Your task to perform on an android device: create a new album in the google photos Image 0: 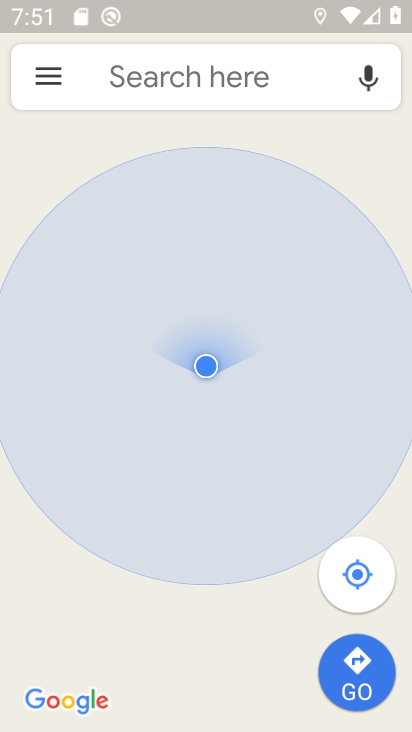
Step 0: press home button
Your task to perform on an android device: create a new album in the google photos Image 1: 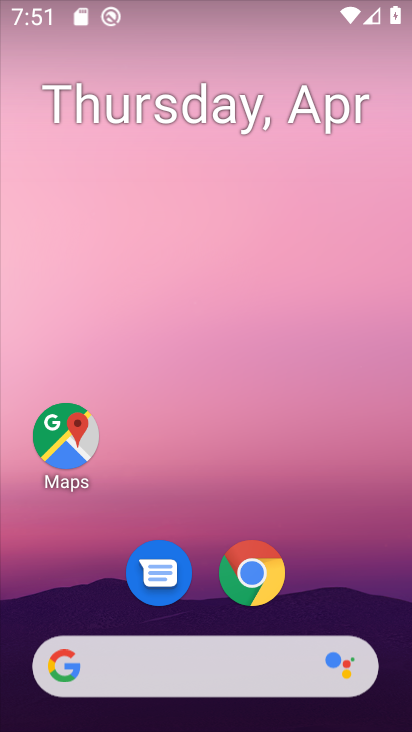
Step 1: drag from (200, 672) to (200, 40)
Your task to perform on an android device: create a new album in the google photos Image 2: 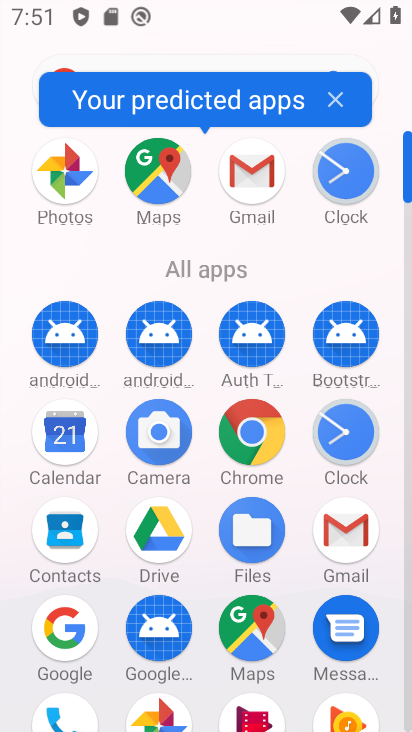
Step 2: click (72, 180)
Your task to perform on an android device: create a new album in the google photos Image 3: 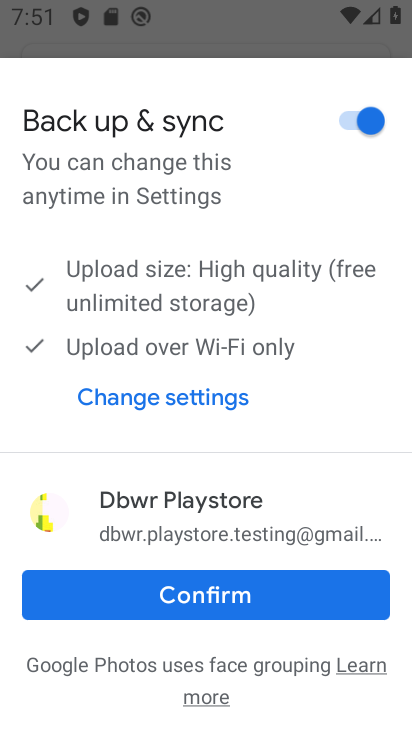
Step 3: click (204, 602)
Your task to perform on an android device: create a new album in the google photos Image 4: 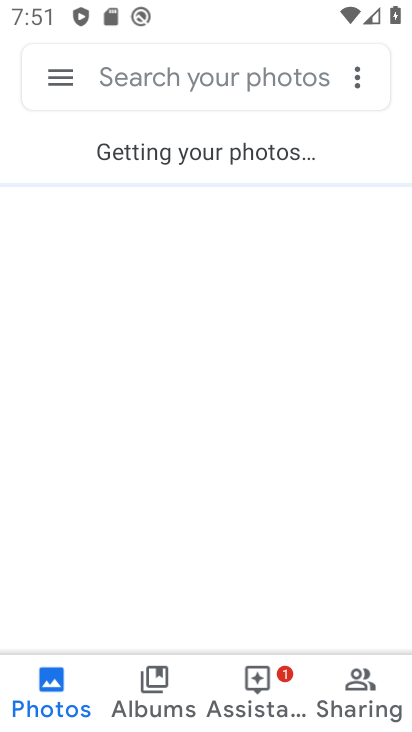
Step 4: click (357, 78)
Your task to perform on an android device: create a new album in the google photos Image 5: 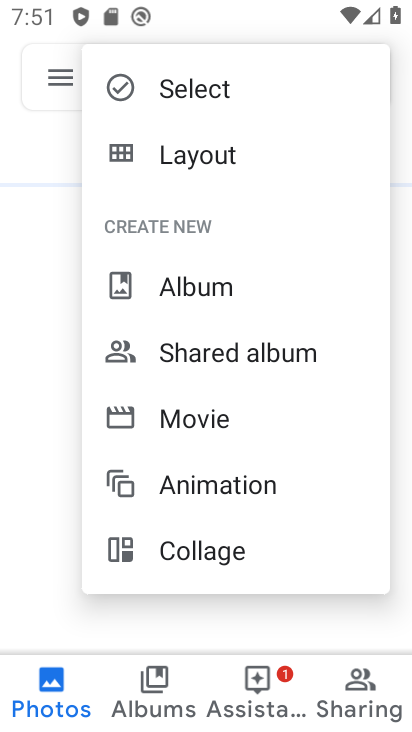
Step 5: click (183, 285)
Your task to perform on an android device: create a new album in the google photos Image 6: 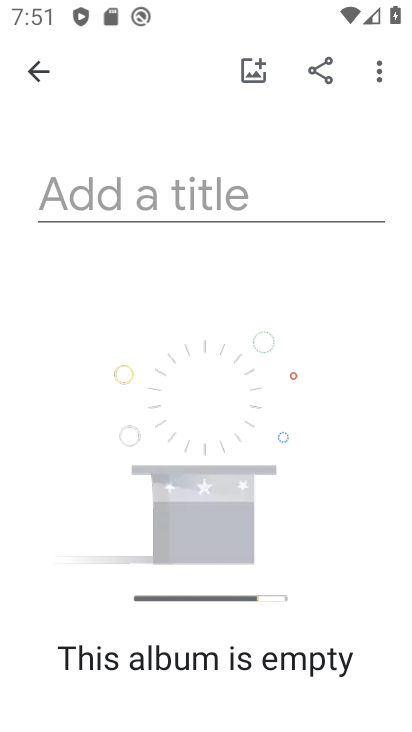
Step 6: click (197, 193)
Your task to perform on an android device: create a new album in the google photos Image 7: 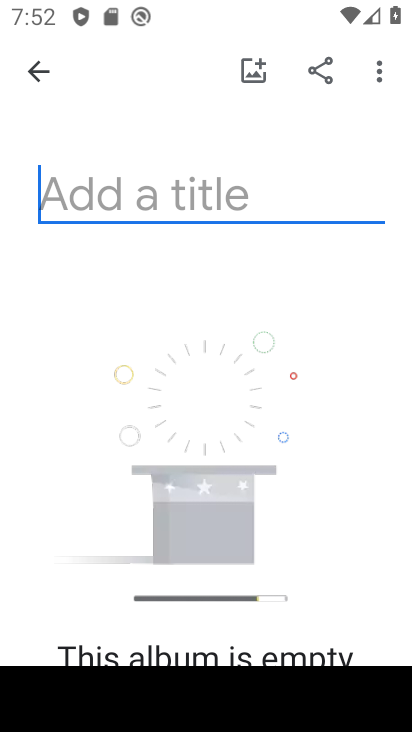
Step 7: type "nmjikl"
Your task to perform on an android device: create a new album in the google photos Image 8: 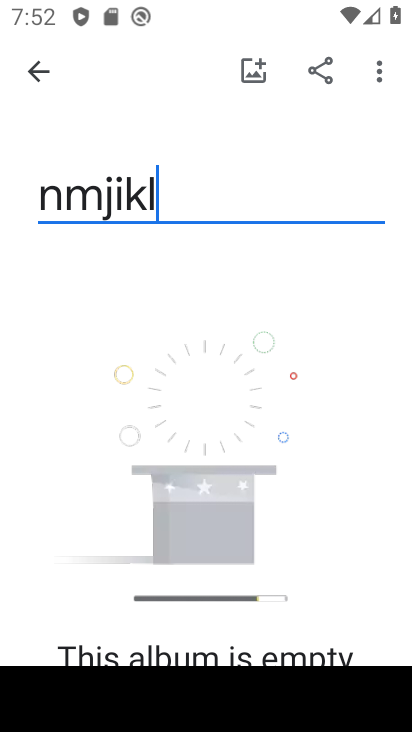
Step 8: drag from (201, 556) to (185, 326)
Your task to perform on an android device: create a new album in the google photos Image 9: 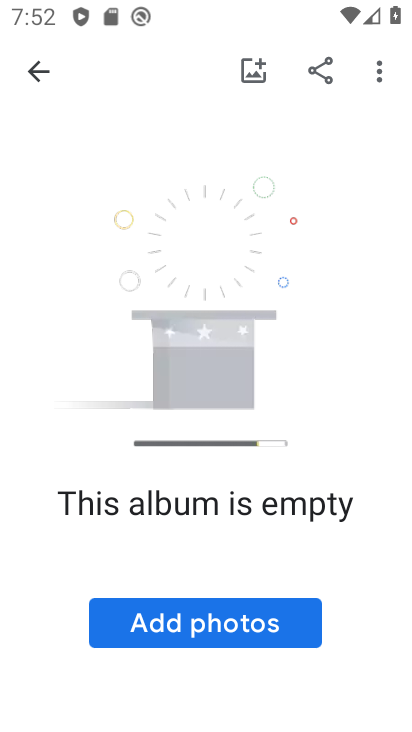
Step 9: click (181, 626)
Your task to perform on an android device: create a new album in the google photos Image 10: 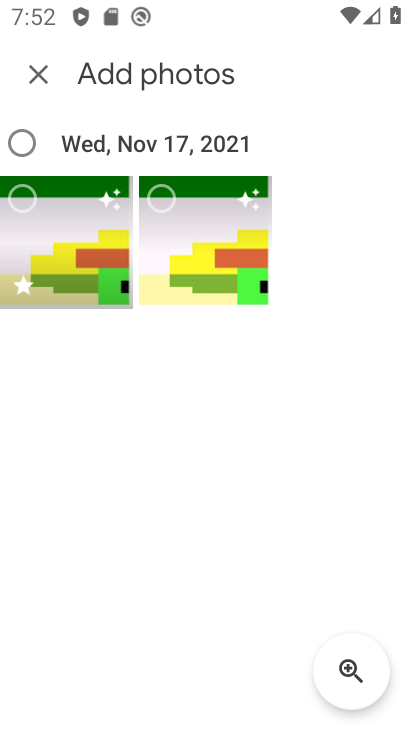
Step 10: click (163, 198)
Your task to perform on an android device: create a new album in the google photos Image 11: 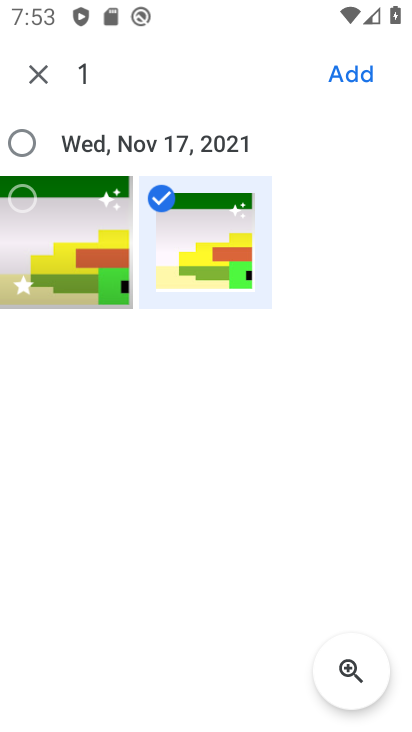
Step 11: click (348, 71)
Your task to perform on an android device: create a new album in the google photos Image 12: 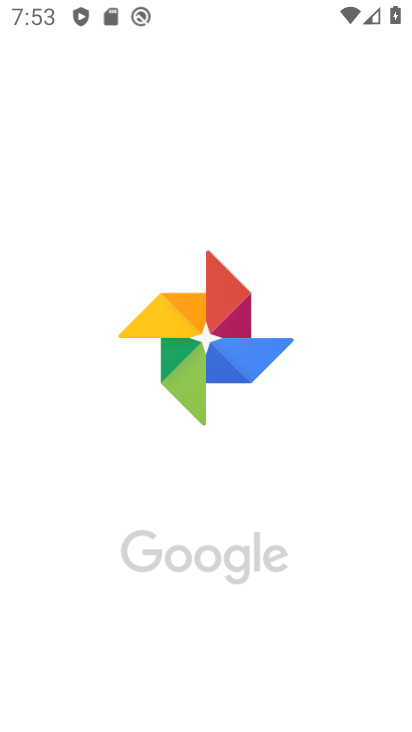
Step 12: task complete